Your task to perform on an android device: Open calendar and show me the second week of next month Image 0: 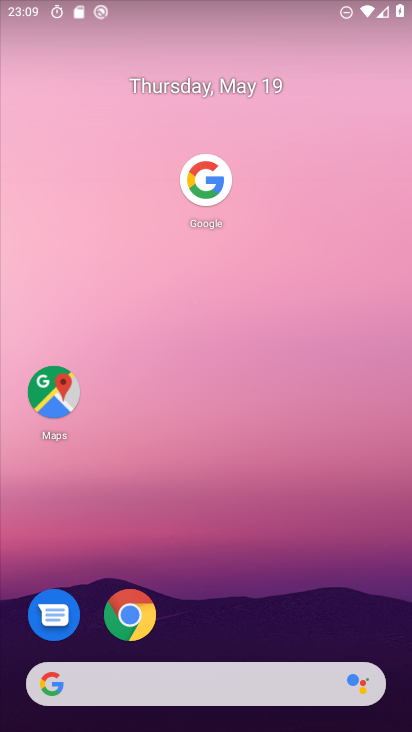
Step 0: drag from (244, 571) to (260, 148)
Your task to perform on an android device: Open calendar and show me the second week of next month Image 1: 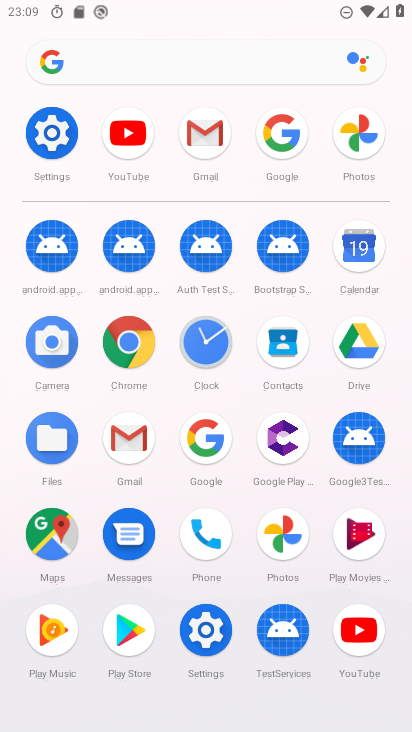
Step 1: click (360, 249)
Your task to perform on an android device: Open calendar and show me the second week of next month Image 2: 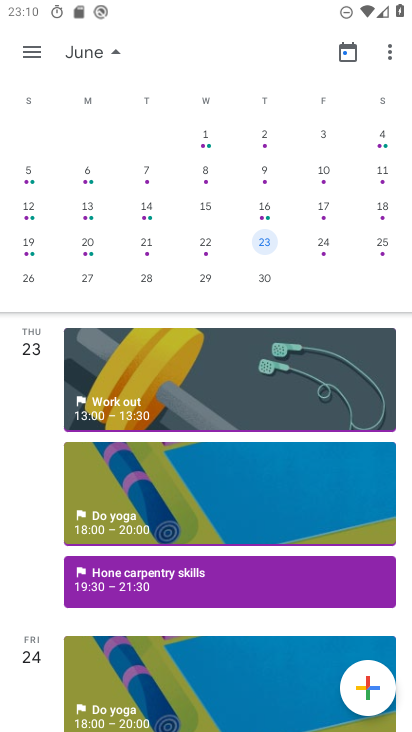
Step 2: click (263, 135)
Your task to perform on an android device: Open calendar and show me the second week of next month Image 3: 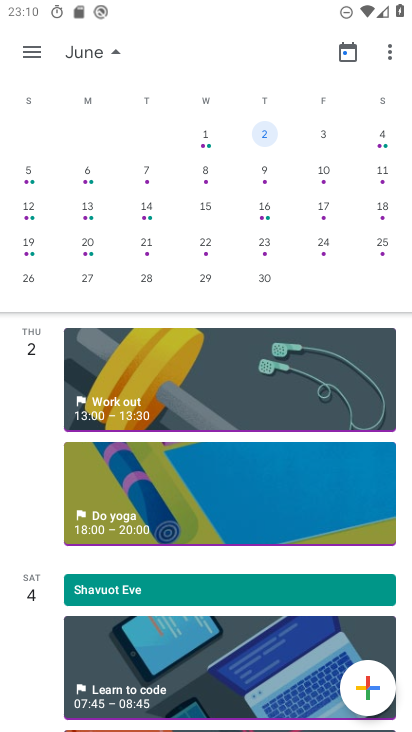
Step 3: task complete